Your task to perform on an android device: star an email in the gmail app Image 0: 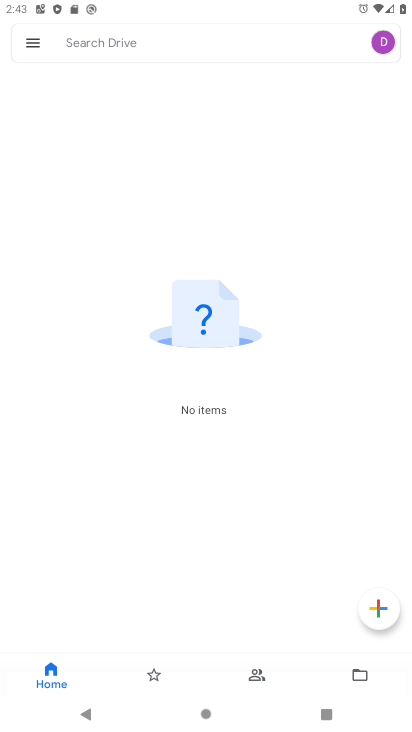
Step 0: press home button
Your task to perform on an android device: star an email in the gmail app Image 1: 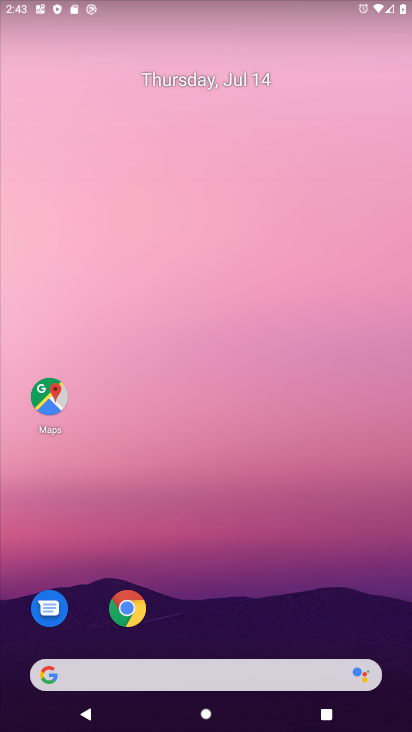
Step 1: drag from (225, 723) to (227, 190)
Your task to perform on an android device: star an email in the gmail app Image 2: 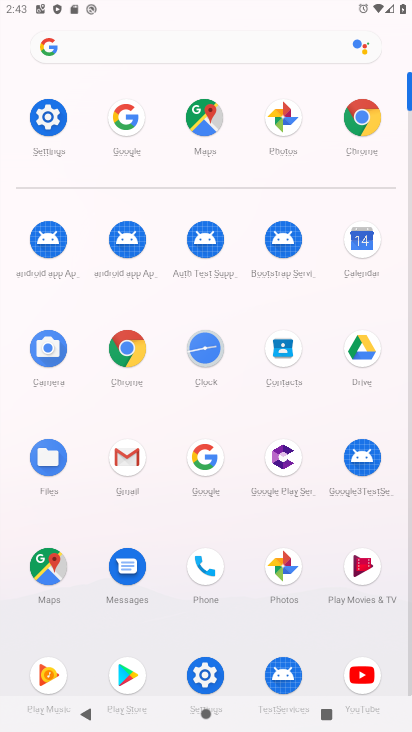
Step 2: click (129, 453)
Your task to perform on an android device: star an email in the gmail app Image 3: 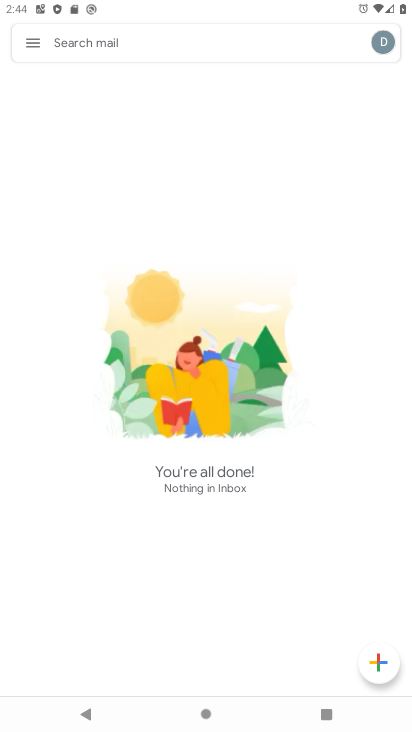
Step 3: task complete